Your task to perform on an android device: What's on my calendar today? Image 0: 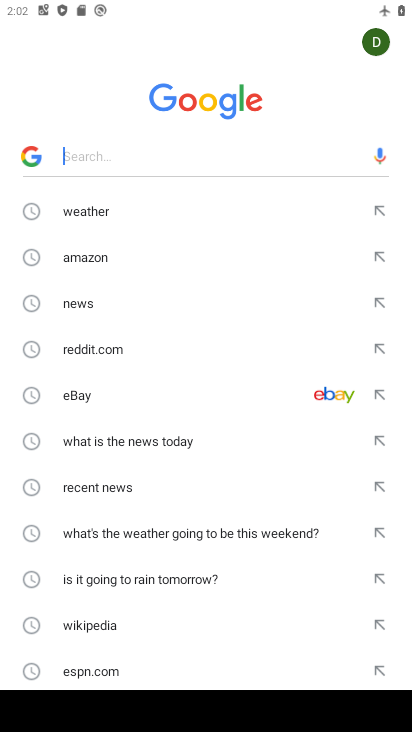
Step 0: press back button
Your task to perform on an android device: What's on my calendar today? Image 1: 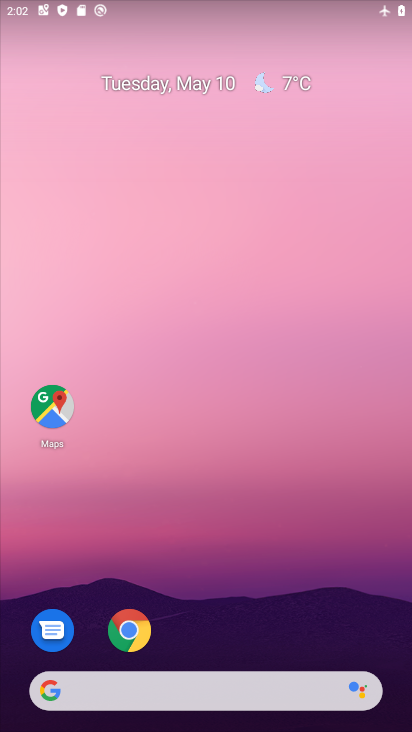
Step 1: drag from (291, 540) to (213, 17)
Your task to perform on an android device: What's on my calendar today? Image 2: 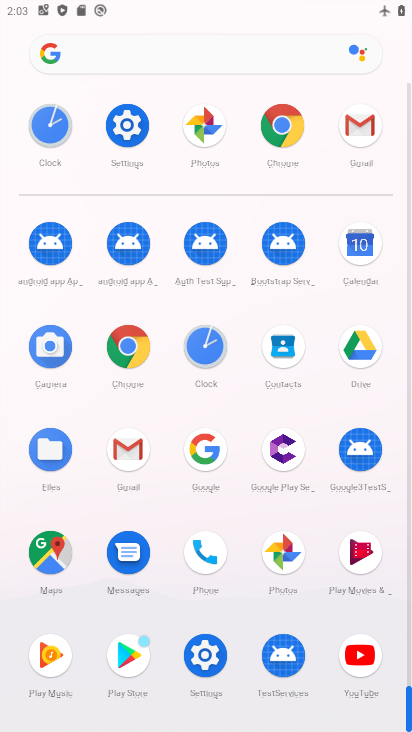
Step 2: drag from (4, 551) to (0, 184)
Your task to perform on an android device: What's on my calendar today? Image 3: 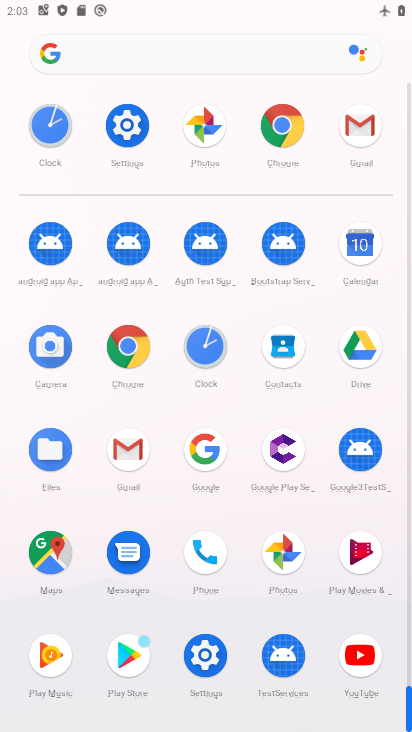
Step 3: click (126, 344)
Your task to perform on an android device: What's on my calendar today? Image 4: 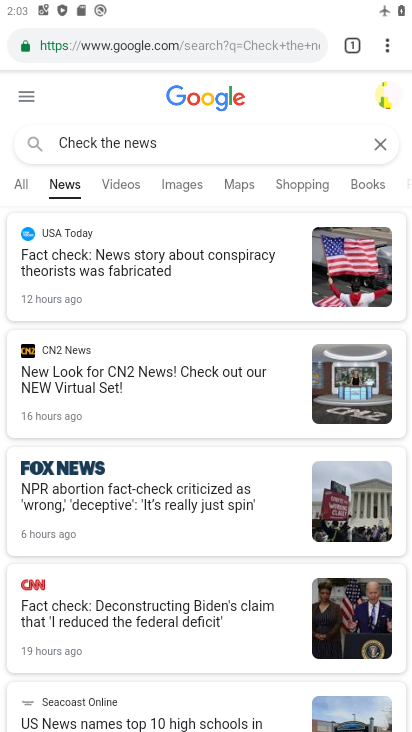
Step 4: click (195, 46)
Your task to perform on an android device: What's on my calendar today? Image 5: 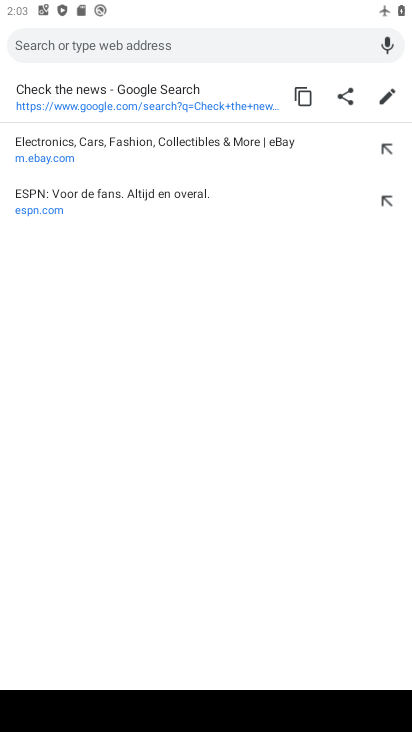
Step 5: type "What's on my calendar today?"
Your task to perform on an android device: What's on my calendar today? Image 6: 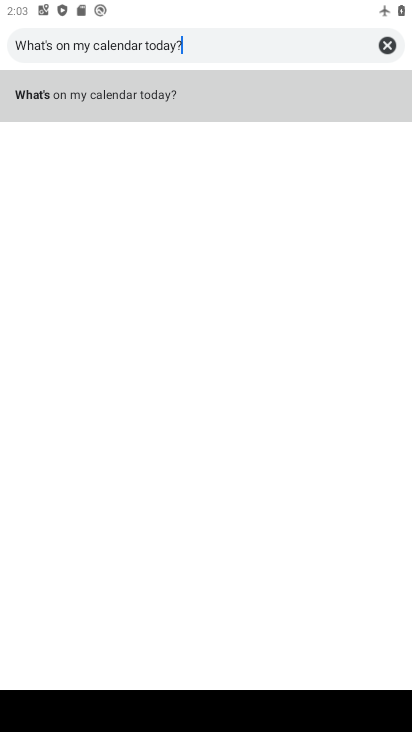
Step 6: type ""
Your task to perform on an android device: What's on my calendar today? Image 7: 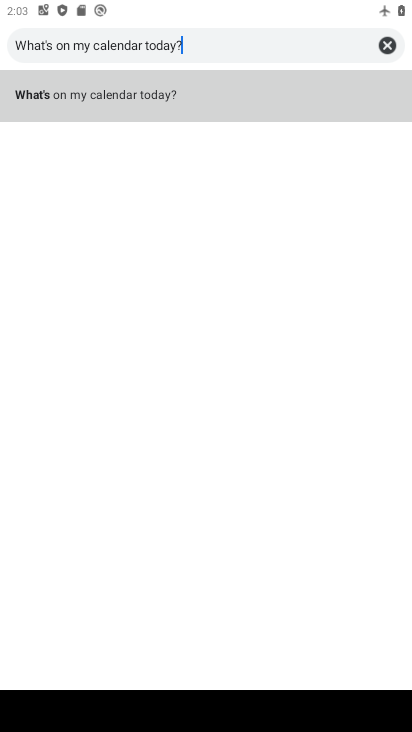
Step 7: click (169, 81)
Your task to perform on an android device: What's on my calendar today? Image 8: 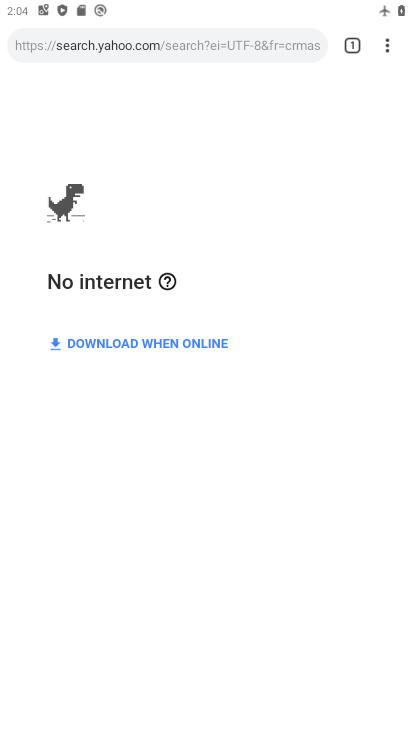
Step 8: click (389, 43)
Your task to perform on an android device: What's on my calendar today? Image 9: 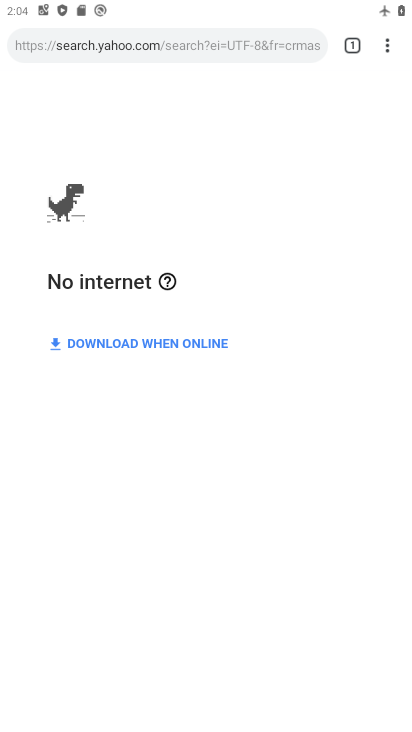
Step 9: press back button
Your task to perform on an android device: What's on my calendar today? Image 10: 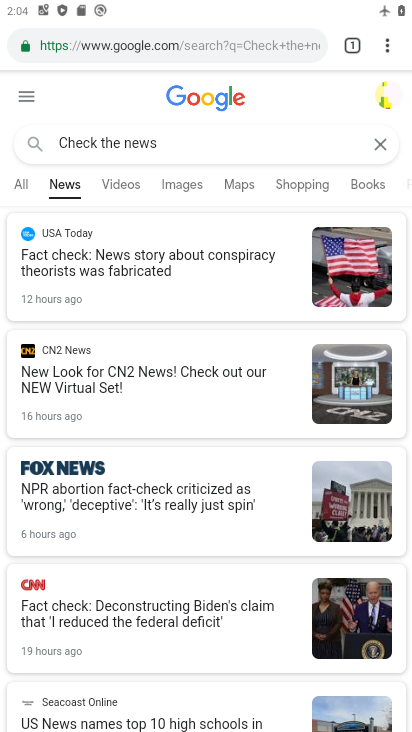
Step 10: press home button
Your task to perform on an android device: What's on my calendar today? Image 11: 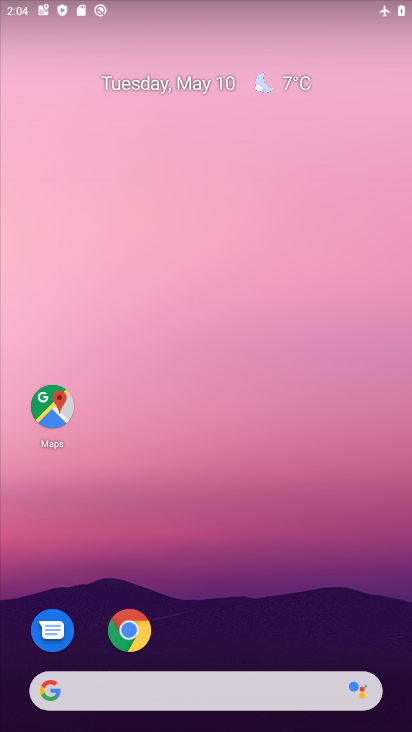
Step 11: drag from (241, 585) to (141, 25)
Your task to perform on an android device: What's on my calendar today? Image 12: 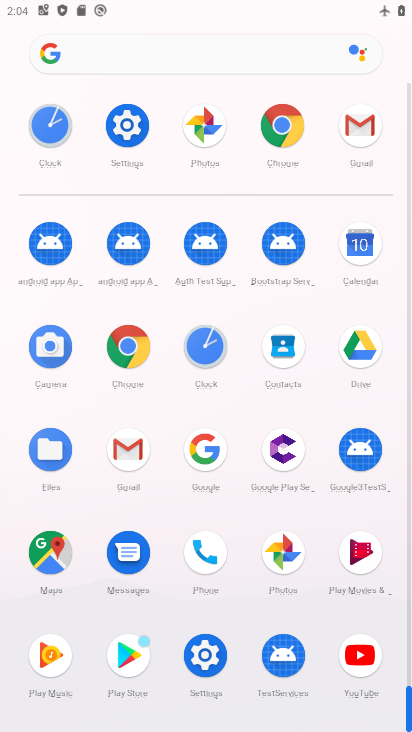
Step 12: click (359, 239)
Your task to perform on an android device: What's on my calendar today? Image 13: 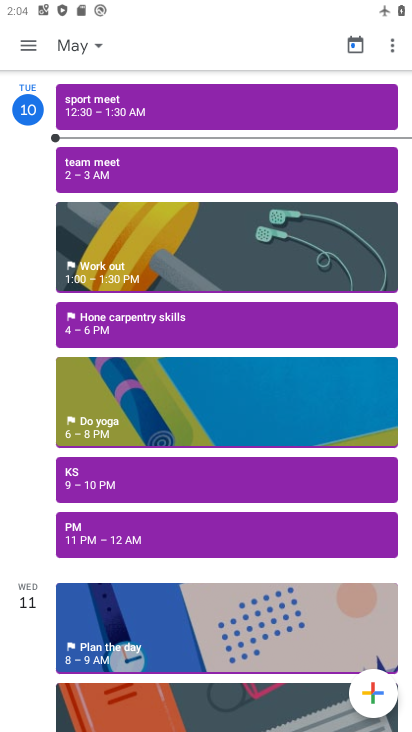
Step 13: click (352, 45)
Your task to perform on an android device: What's on my calendar today? Image 14: 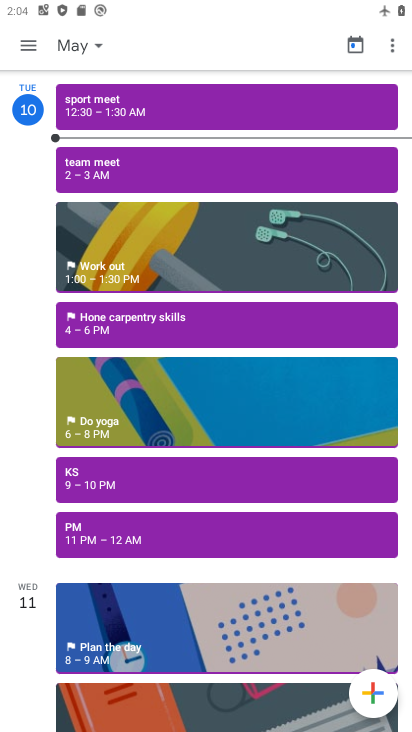
Step 14: click (354, 46)
Your task to perform on an android device: What's on my calendar today? Image 15: 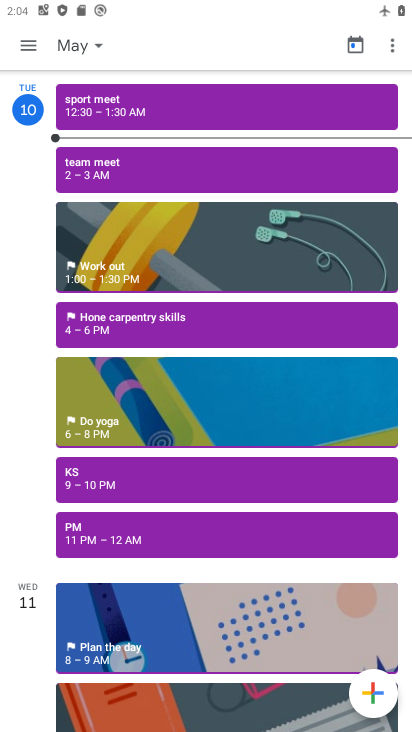
Step 15: task complete